Your task to perform on an android device: turn on location history Image 0: 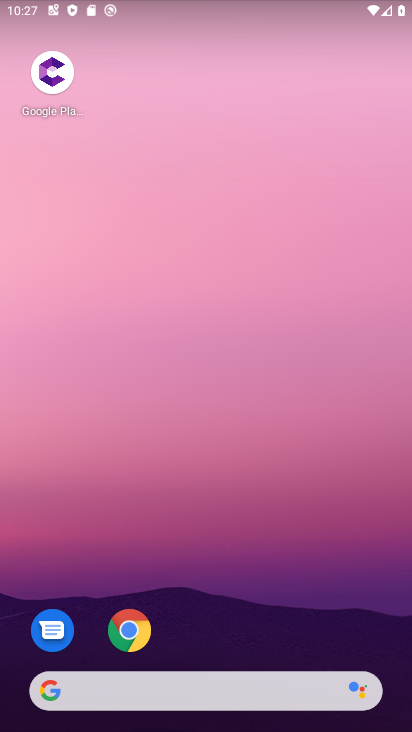
Step 0: drag from (340, 618) to (212, 17)
Your task to perform on an android device: turn on location history Image 1: 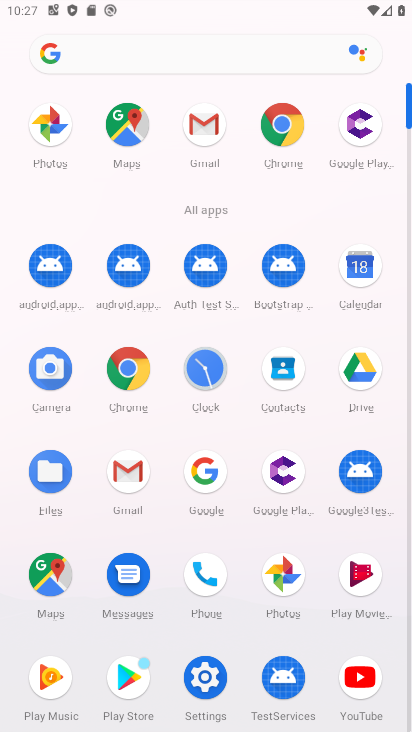
Step 1: drag from (309, 603) to (267, 72)
Your task to perform on an android device: turn on location history Image 2: 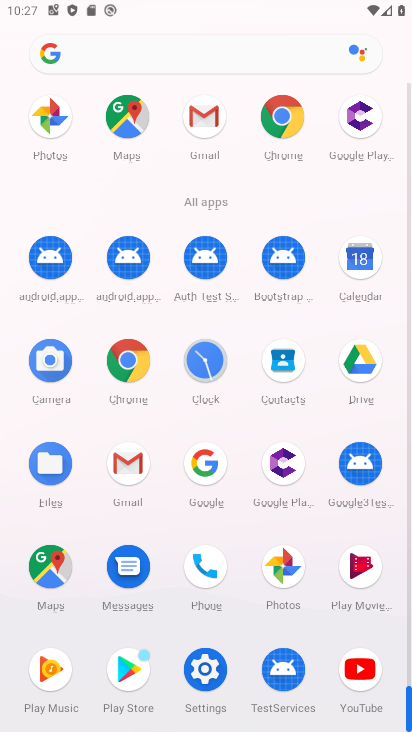
Step 2: click (217, 660)
Your task to perform on an android device: turn on location history Image 3: 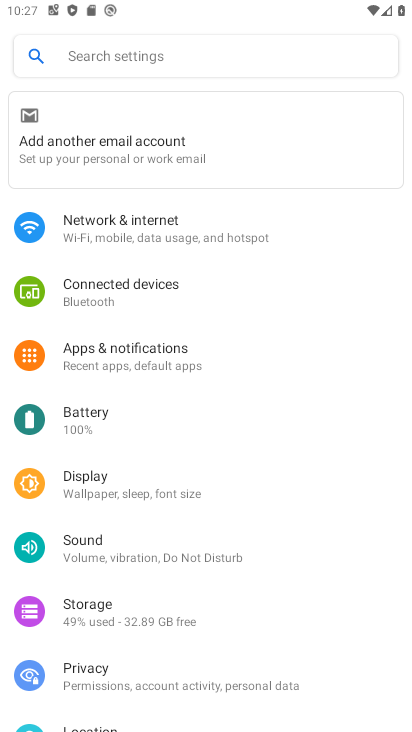
Step 3: drag from (250, 643) to (163, 214)
Your task to perform on an android device: turn on location history Image 4: 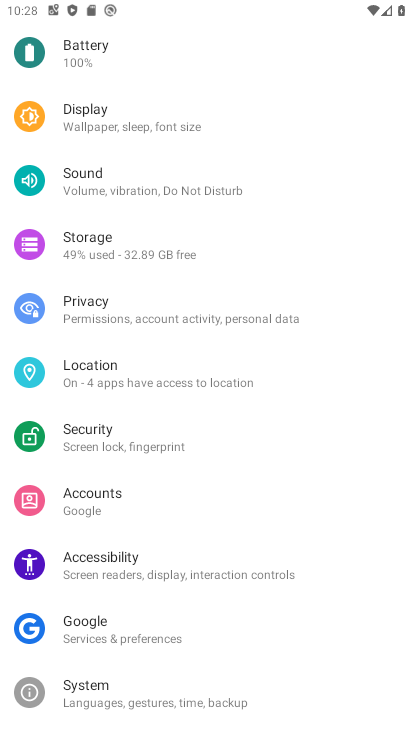
Step 4: click (153, 384)
Your task to perform on an android device: turn on location history Image 5: 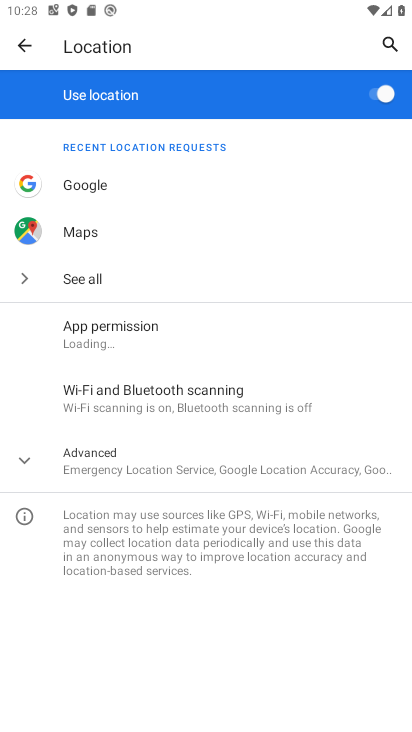
Step 5: click (199, 469)
Your task to perform on an android device: turn on location history Image 6: 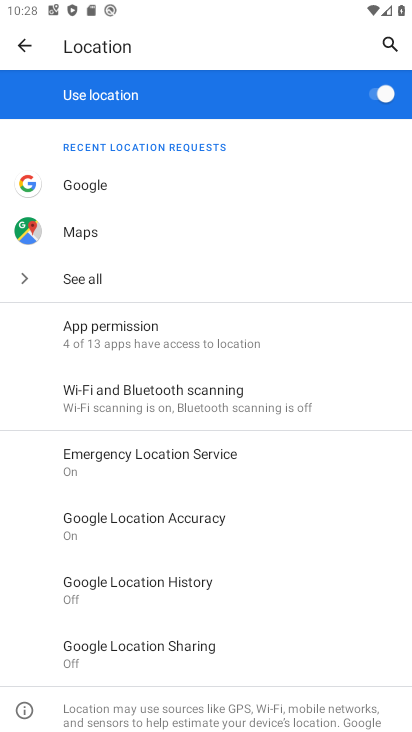
Step 6: click (271, 582)
Your task to perform on an android device: turn on location history Image 7: 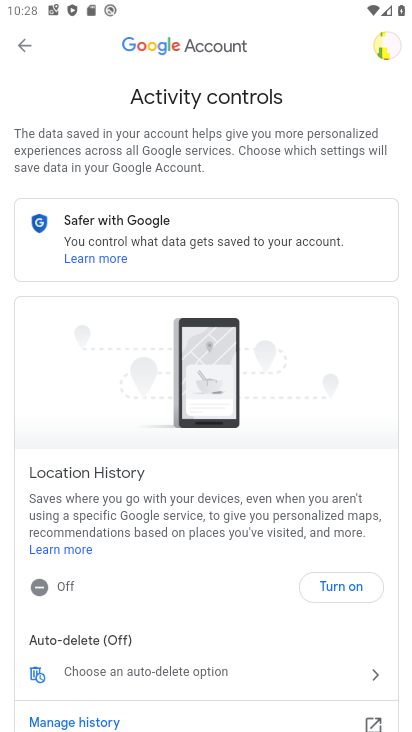
Step 7: drag from (243, 529) to (232, 241)
Your task to perform on an android device: turn on location history Image 8: 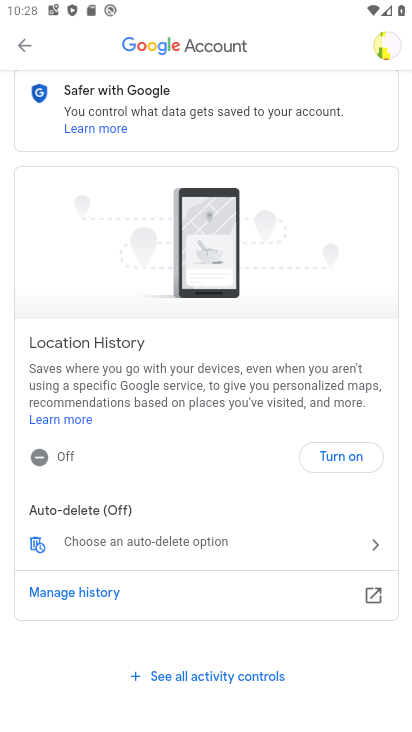
Step 8: drag from (263, 213) to (380, 670)
Your task to perform on an android device: turn on location history Image 9: 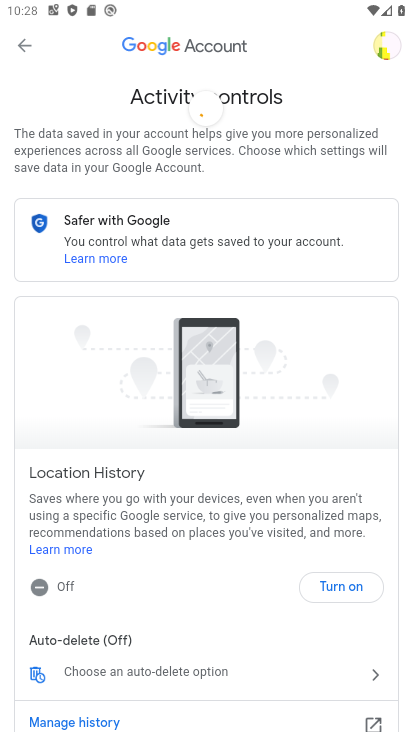
Step 9: click (361, 596)
Your task to perform on an android device: turn on location history Image 10: 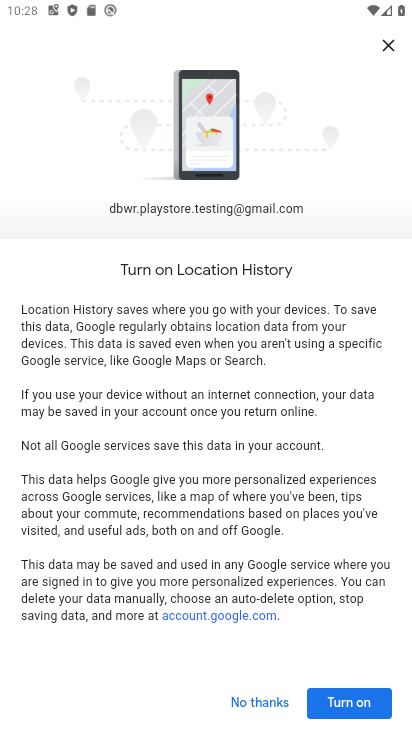
Step 10: click (354, 693)
Your task to perform on an android device: turn on location history Image 11: 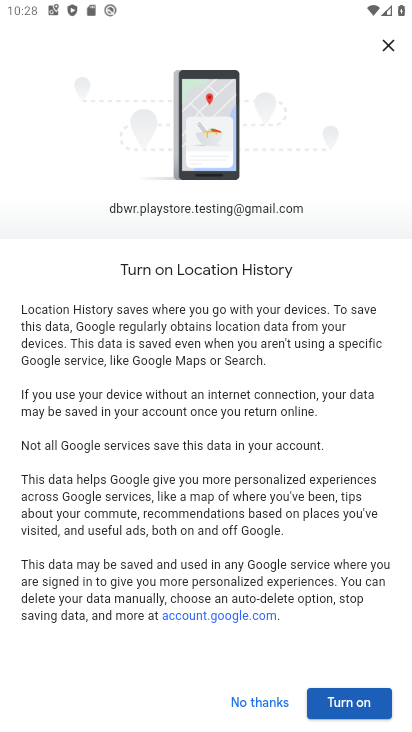
Step 11: click (364, 706)
Your task to perform on an android device: turn on location history Image 12: 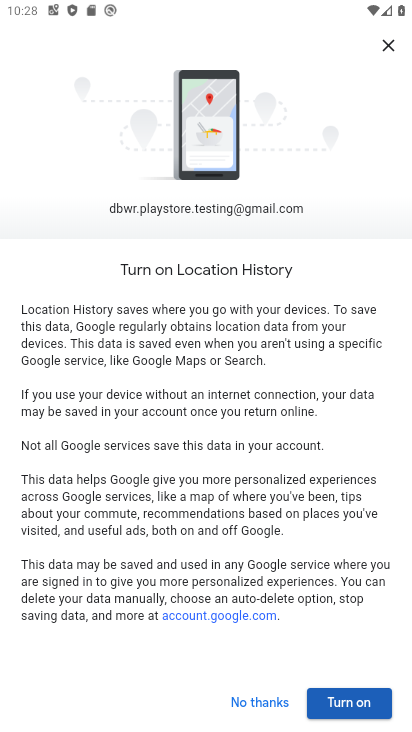
Step 12: click (368, 707)
Your task to perform on an android device: turn on location history Image 13: 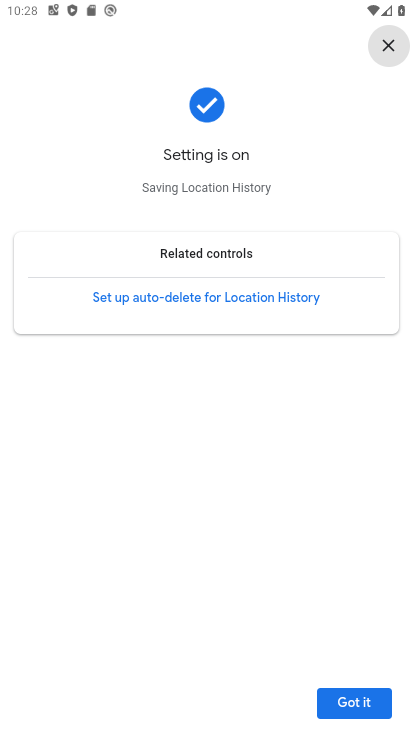
Step 13: task complete